Your task to perform on an android device: allow notifications from all sites in the chrome app Image 0: 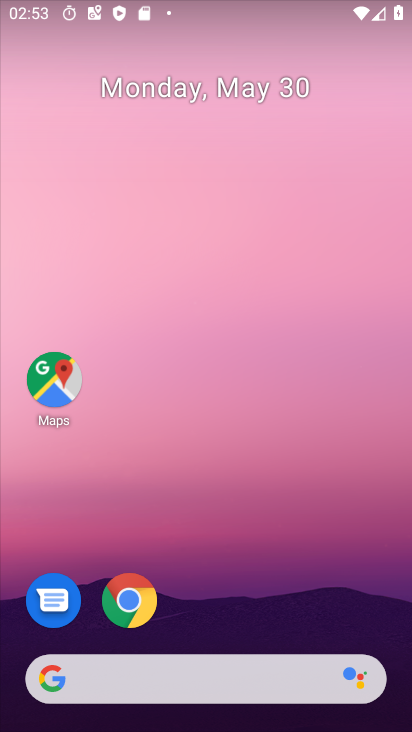
Step 0: click (134, 608)
Your task to perform on an android device: allow notifications from all sites in the chrome app Image 1: 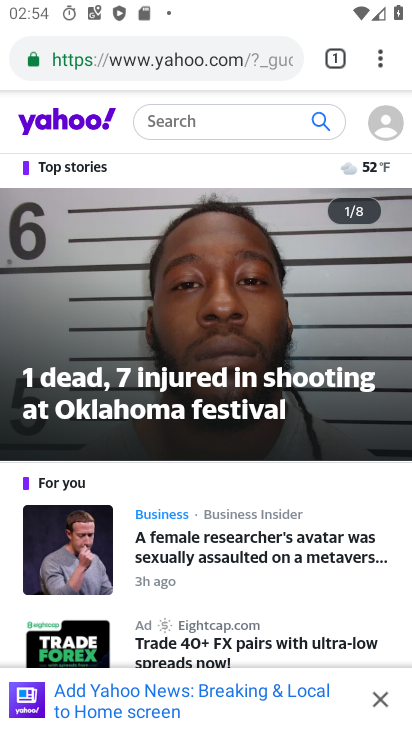
Step 1: click (388, 59)
Your task to perform on an android device: allow notifications from all sites in the chrome app Image 2: 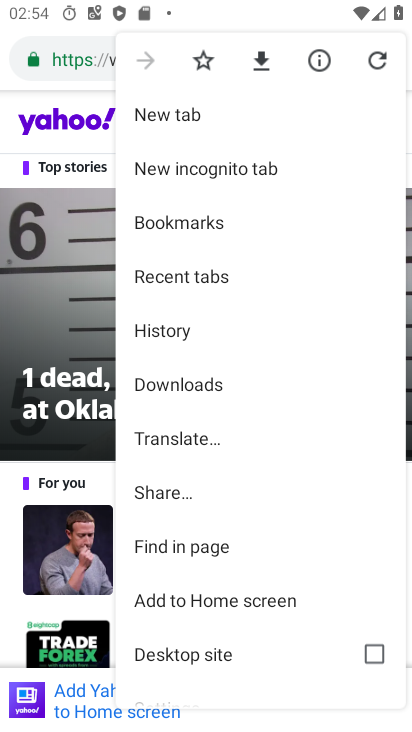
Step 2: drag from (221, 639) to (237, 169)
Your task to perform on an android device: allow notifications from all sites in the chrome app Image 3: 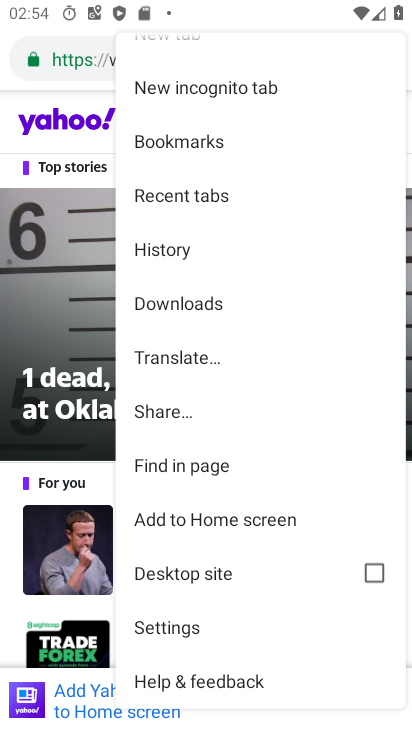
Step 3: click (179, 624)
Your task to perform on an android device: allow notifications from all sites in the chrome app Image 4: 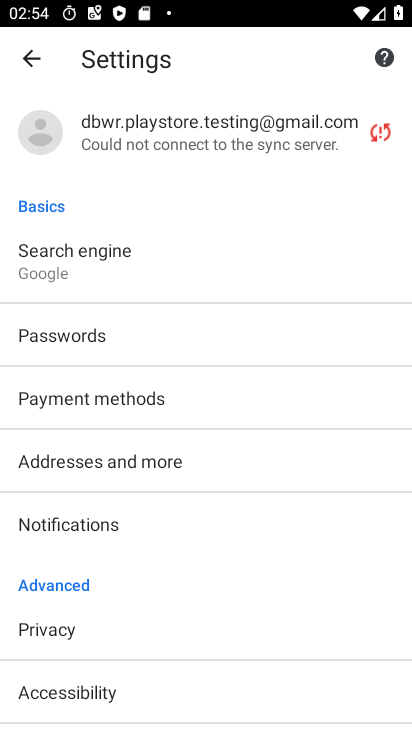
Step 4: click (113, 533)
Your task to perform on an android device: allow notifications from all sites in the chrome app Image 5: 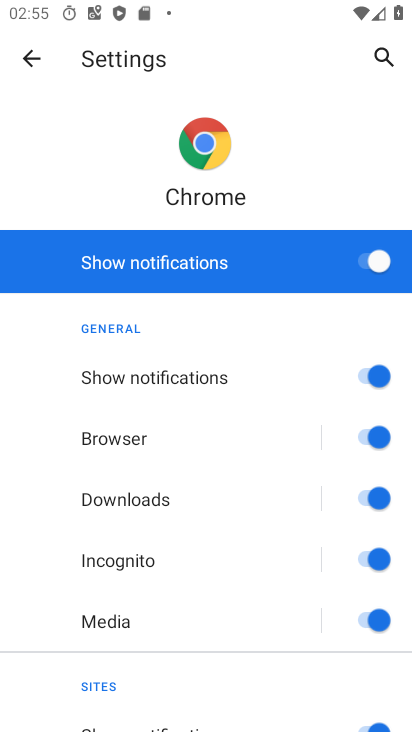
Step 5: task complete